Your task to perform on an android device: Go to Amazon Image 0: 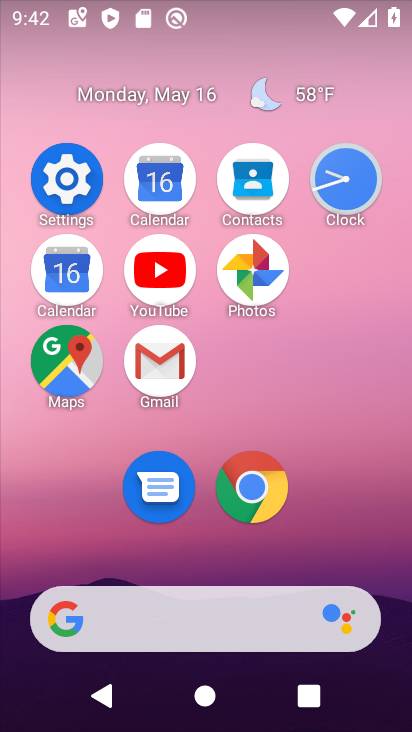
Step 0: click (234, 493)
Your task to perform on an android device: Go to Amazon Image 1: 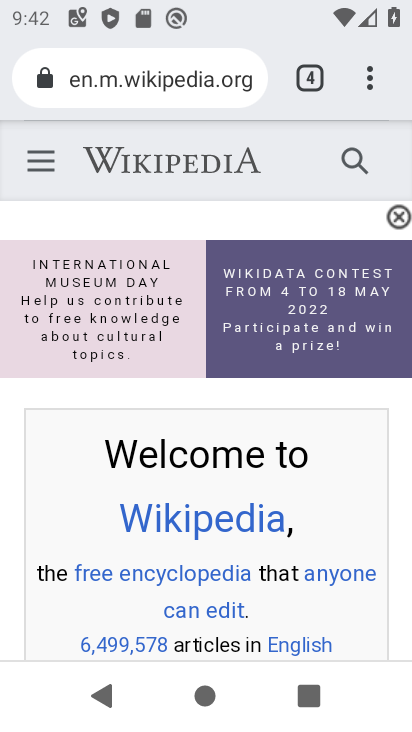
Step 1: click (312, 74)
Your task to perform on an android device: Go to Amazon Image 2: 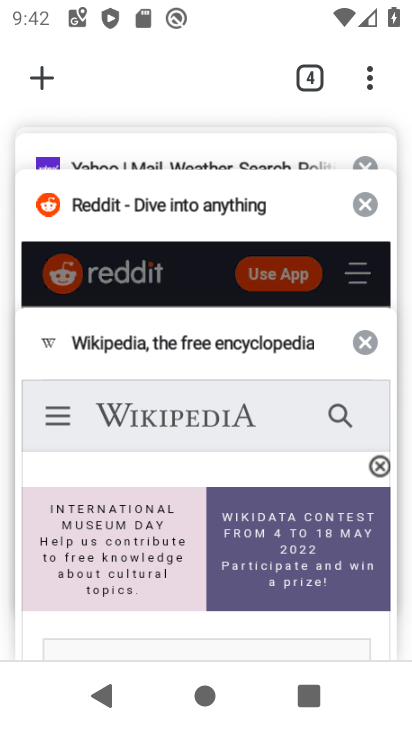
Step 2: drag from (136, 275) to (92, 557)
Your task to perform on an android device: Go to Amazon Image 3: 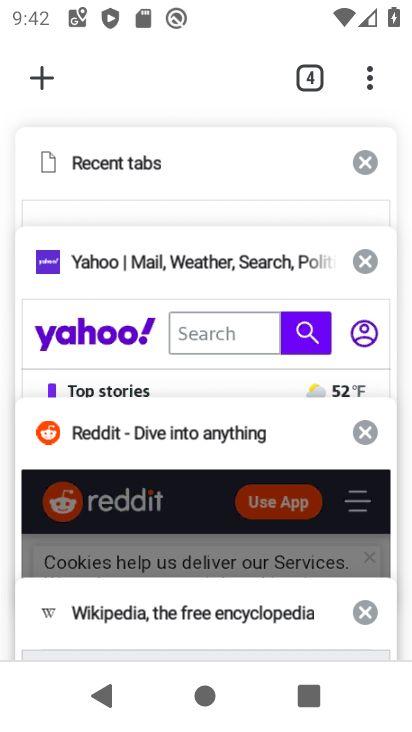
Step 3: click (46, 61)
Your task to perform on an android device: Go to Amazon Image 4: 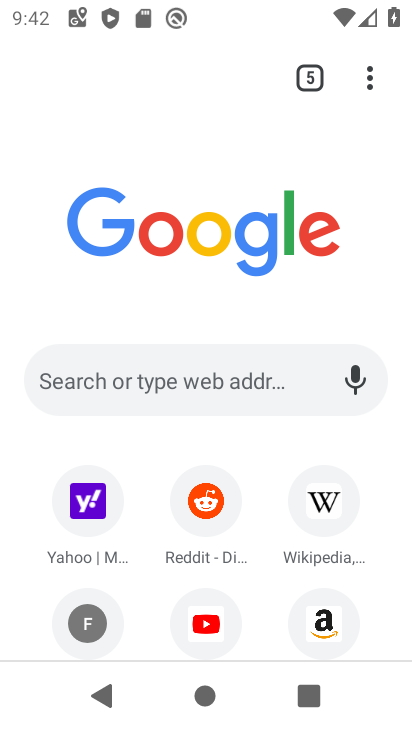
Step 4: click (341, 605)
Your task to perform on an android device: Go to Amazon Image 5: 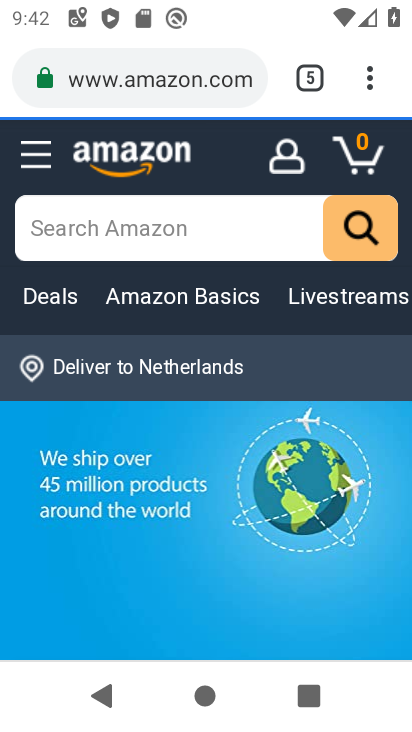
Step 5: task complete